Your task to perform on an android device: uninstall "eBay: The shopping marketplace" Image 0: 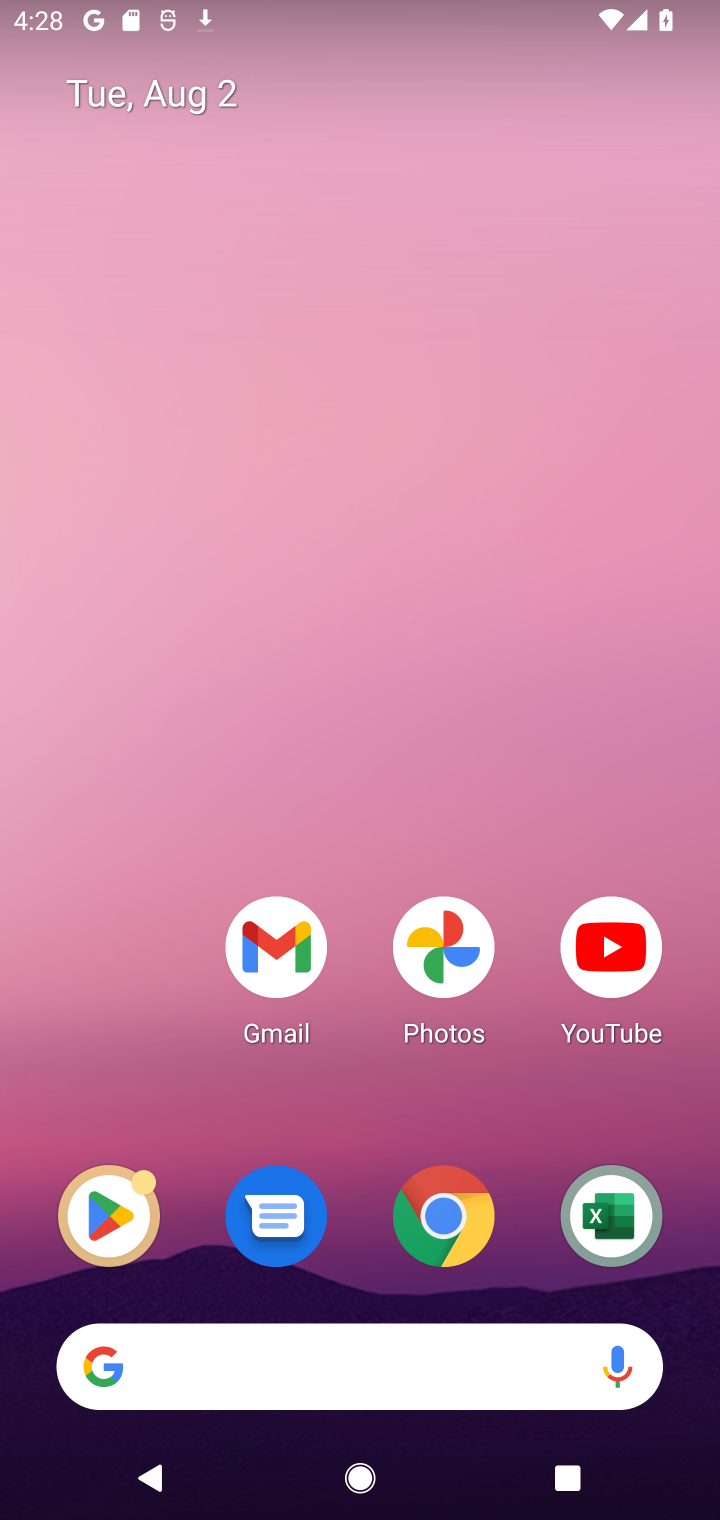
Step 0: click (149, 1219)
Your task to perform on an android device: uninstall "eBay: The shopping marketplace" Image 1: 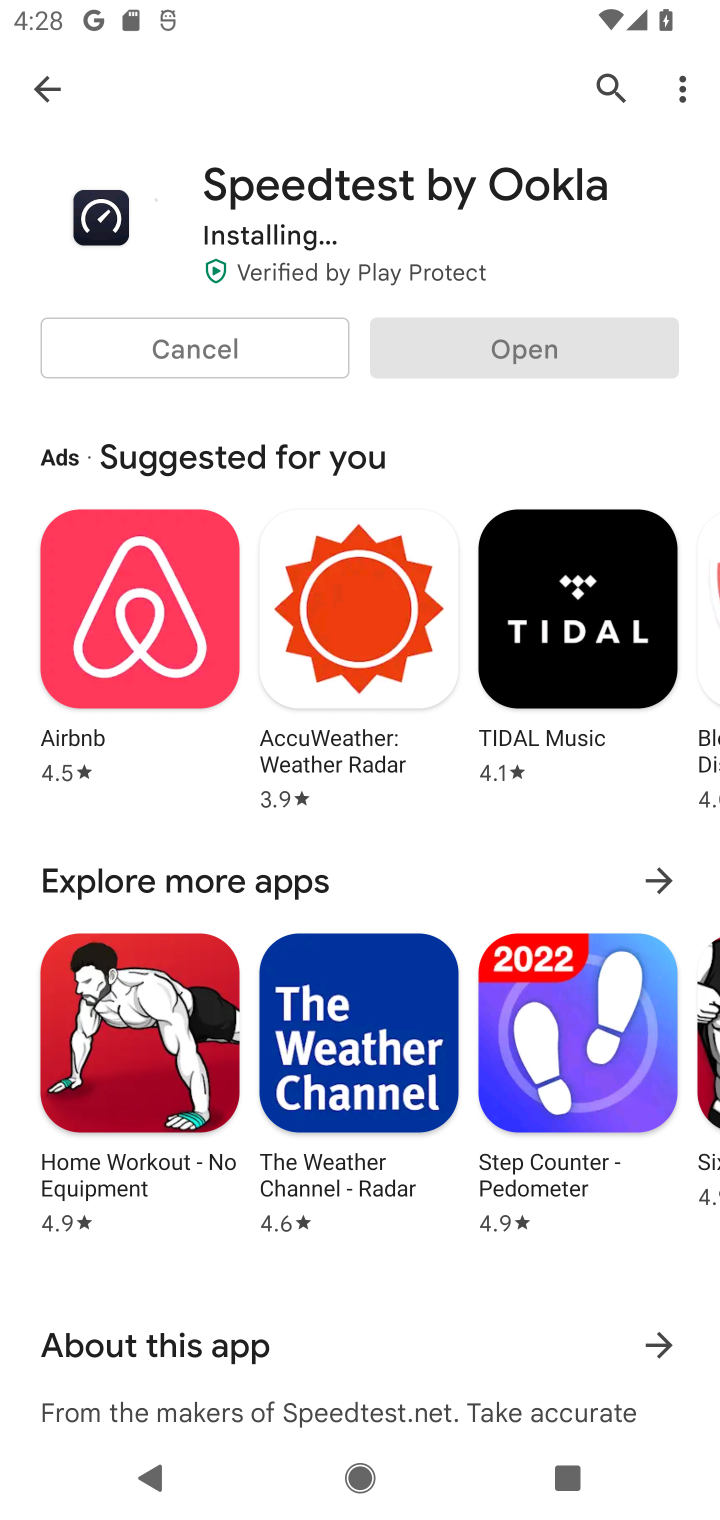
Step 1: click (634, 96)
Your task to perform on an android device: uninstall "eBay: The shopping marketplace" Image 2: 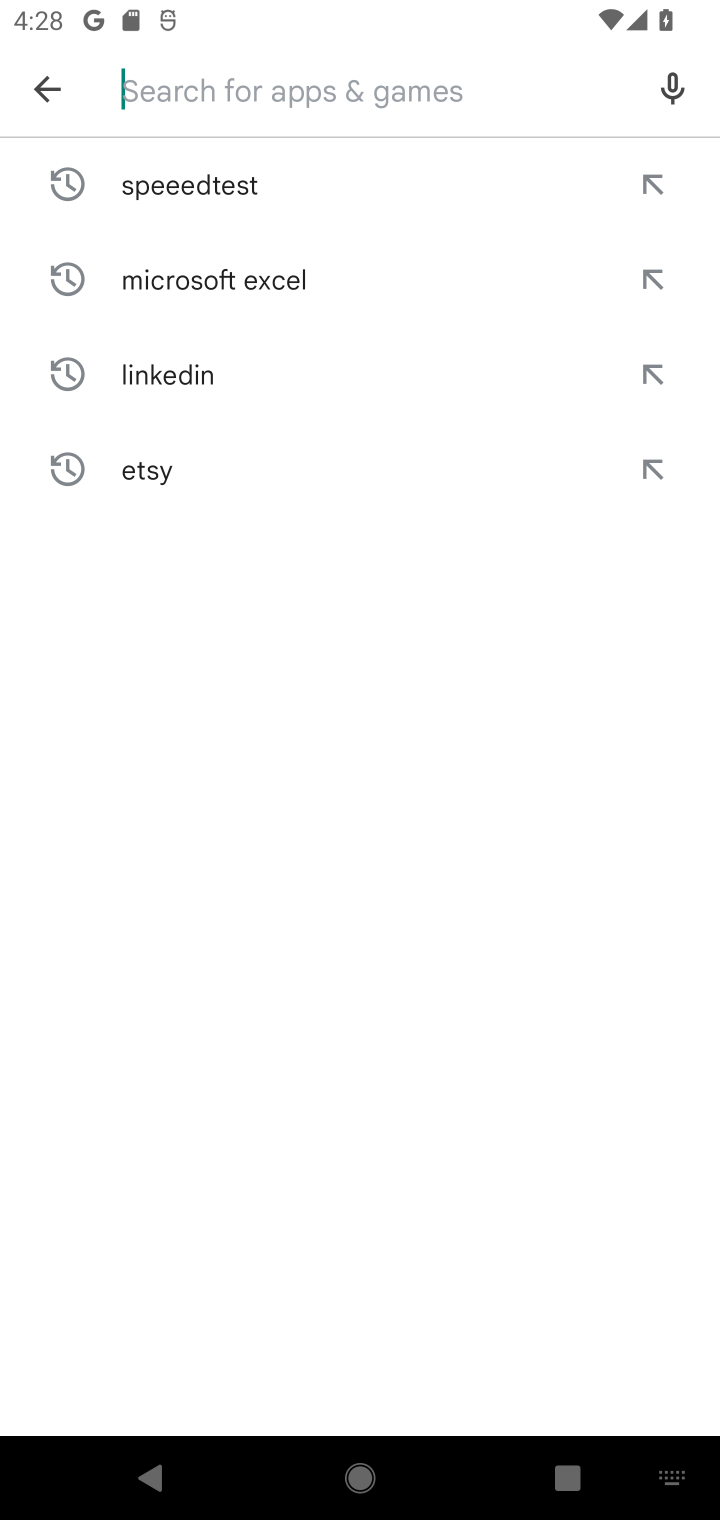
Step 2: type "ebay"
Your task to perform on an android device: uninstall "eBay: The shopping marketplace" Image 3: 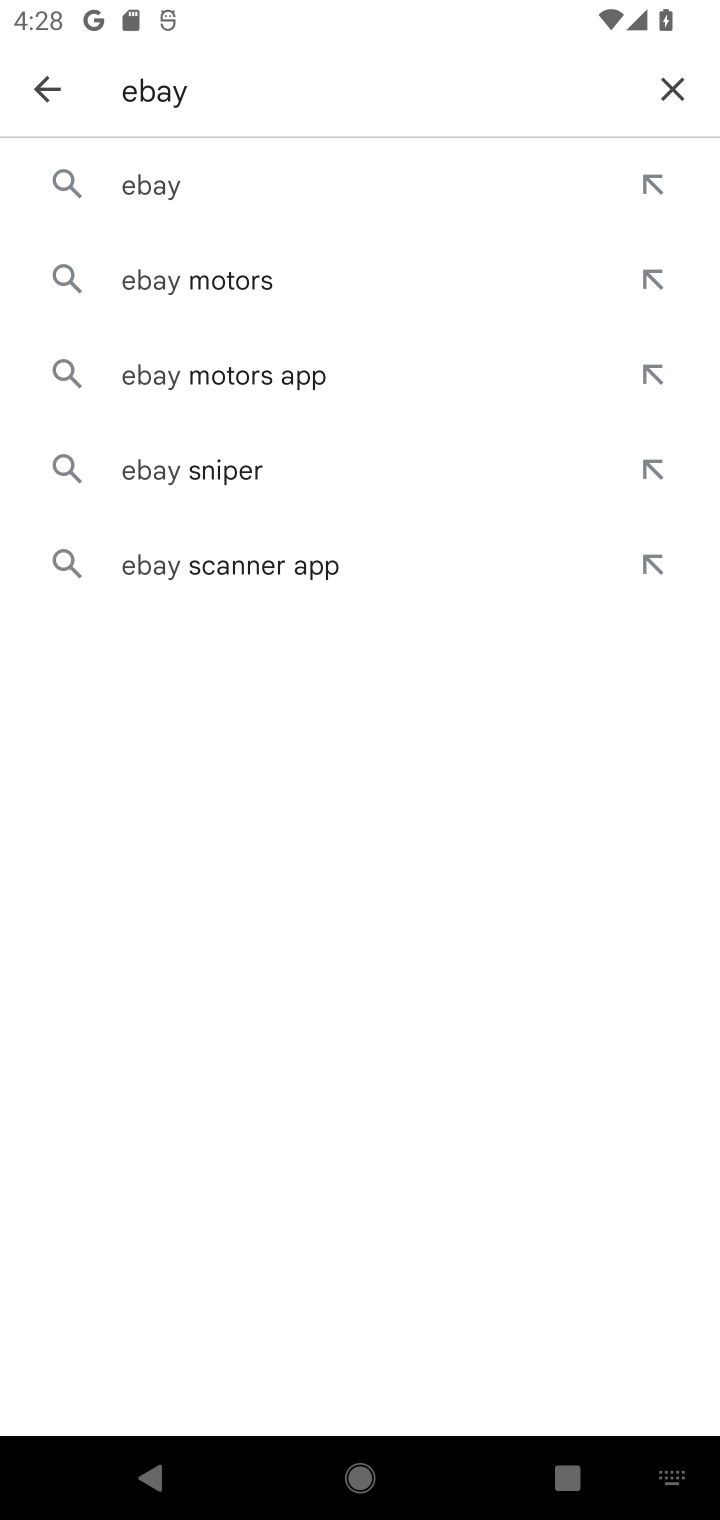
Step 3: click (338, 204)
Your task to perform on an android device: uninstall "eBay: The shopping marketplace" Image 4: 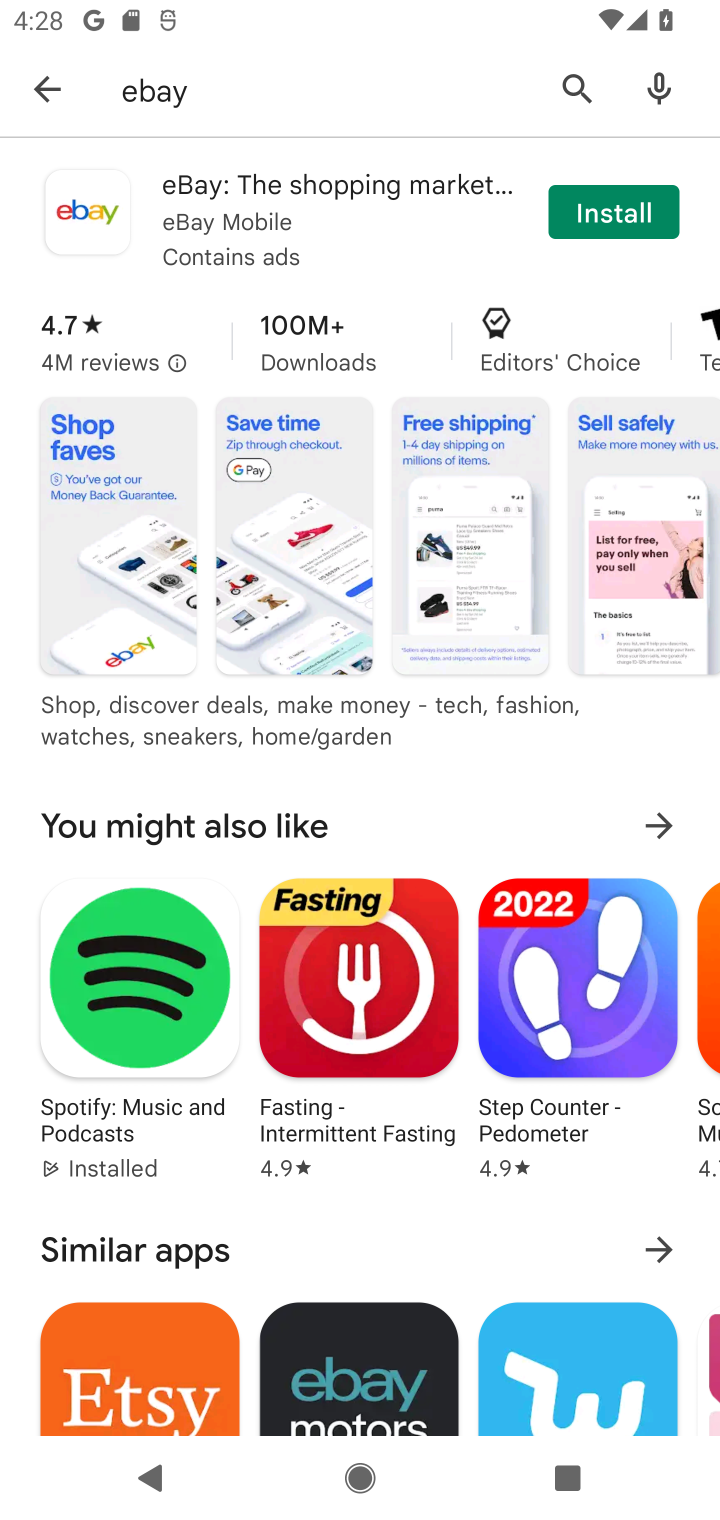
Step 4: click (581, 212)
Your task to perform on an android device: uninstall "eBay: The shopping marketplace" Image 5: 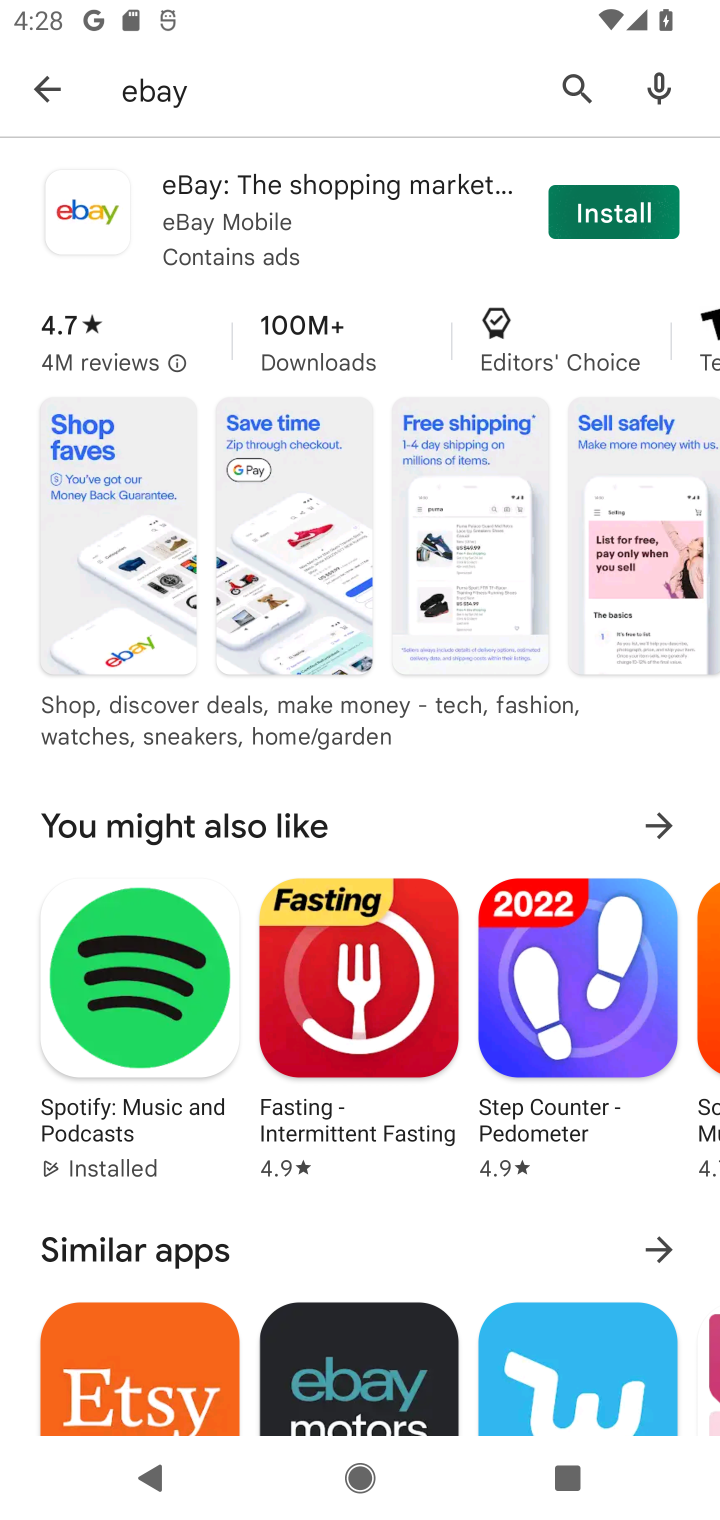
Step 5: task complete